Your task to perform on an android device: Check the news Image 0: 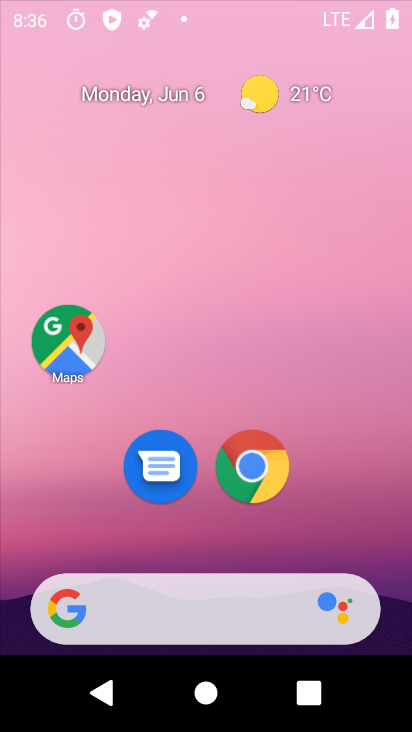
Step 0: drag from (211, 96) to (84, 1)
Your task to perform on an android device: Check the news Image 1: 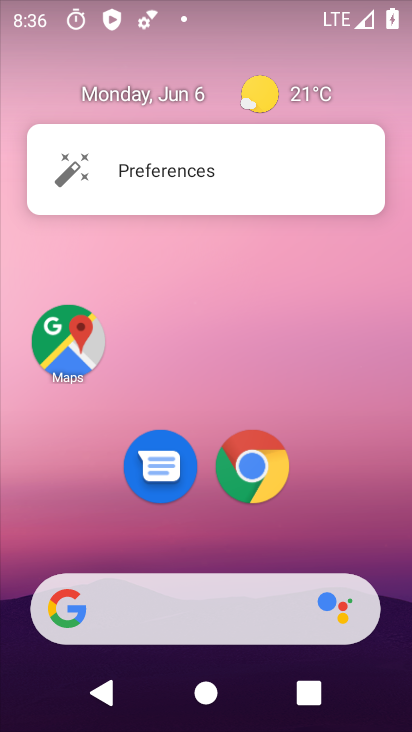
Step 1: drag from (227, 387) to (253, 245)
Your task to perform on an android device: Check the news Image 2: 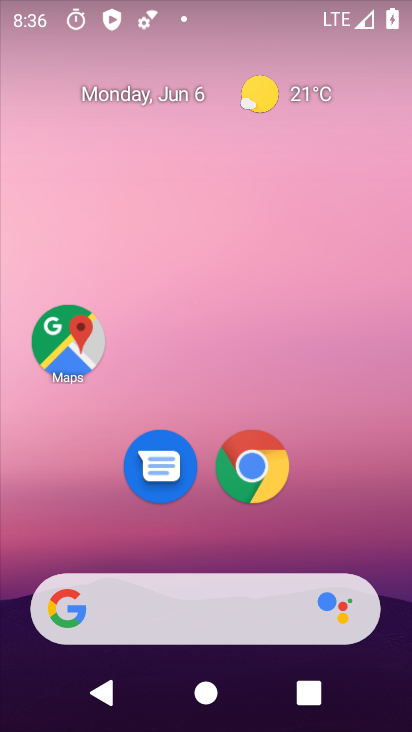
Step 2: drag from (194, 523) to (219, 239)
Your task to perform on an android device: Check the news Image 3: 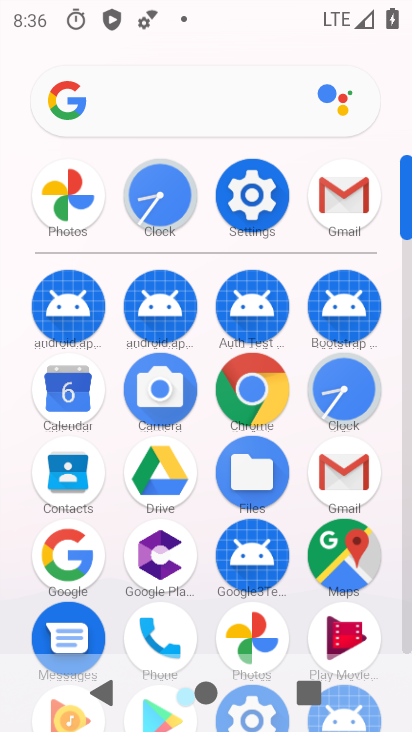
Step 3: click (149, 117)
Your task to perform on an android device: Check the news Image 4: 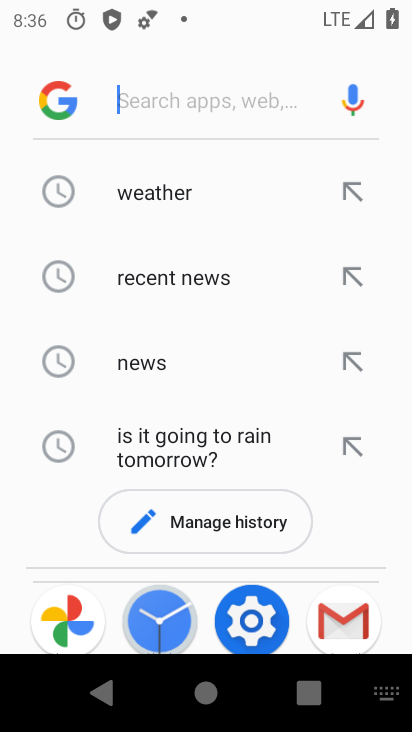
Step 4: click (211, 361)
Your task to perform on an android device: Check the news Image 5: 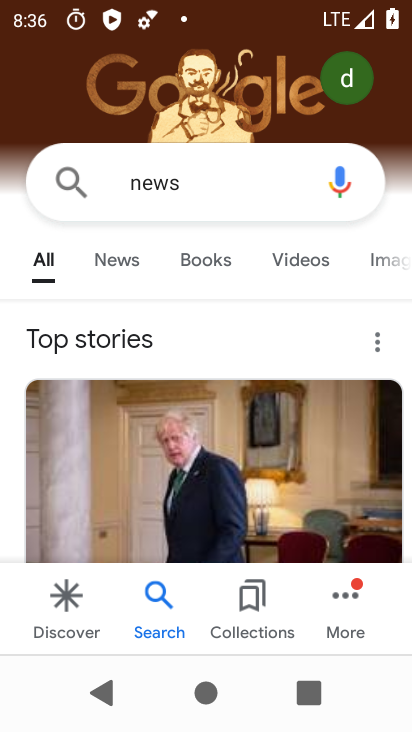
Step 5: task complete